Your task to perform on an android device: Open Chrome and go to settings Image 0: 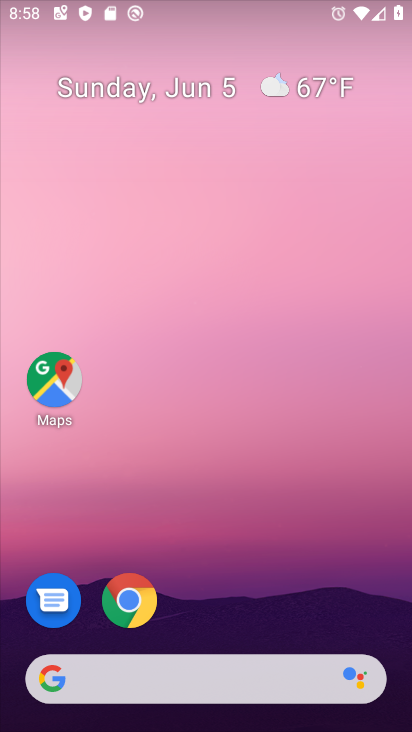
Step 0: drag from (396, 635) to (286, 55)
Your task to perform on an android device: Open Chrome and go to settings Image 1: 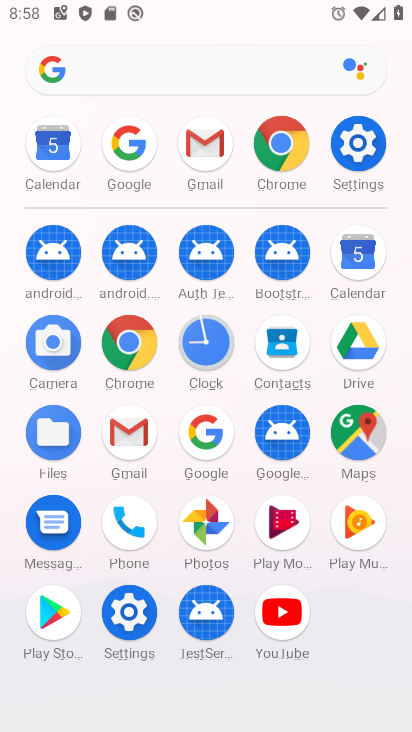
Step 1: click (276, 345)
Your task to perform on an android device: Open Chrome and go to settings Image 2: 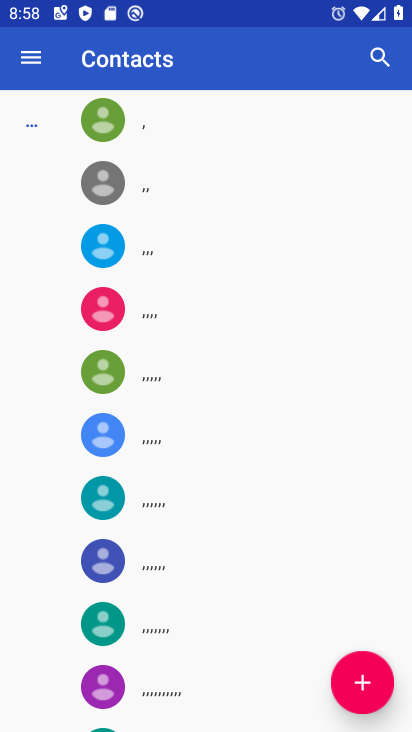
Step 2: press home button
Your task to perform on an android device: Open Chrome and go to settings Image 3: 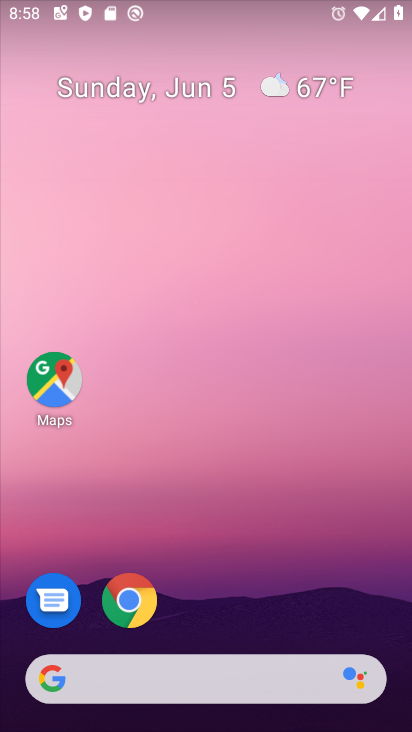
Step 3: drag from (392, 659) to (280, 40)
Your task to perform on an android device: Open Chrome and go to settings Image 4: 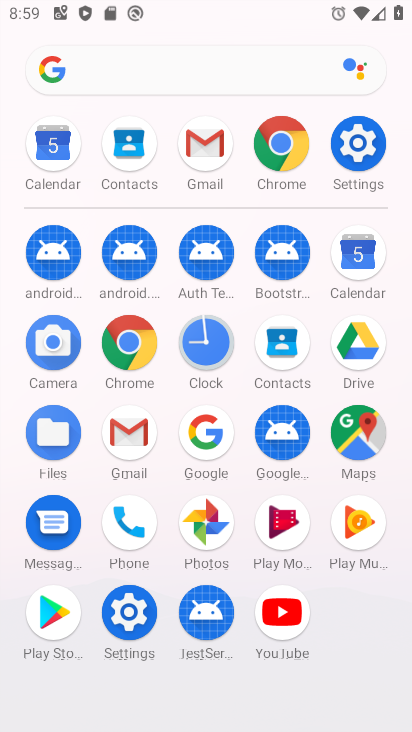
Step 4: click (115, 340)
Your task to perform on an android device: Open Chrome and go to settings Image 5: 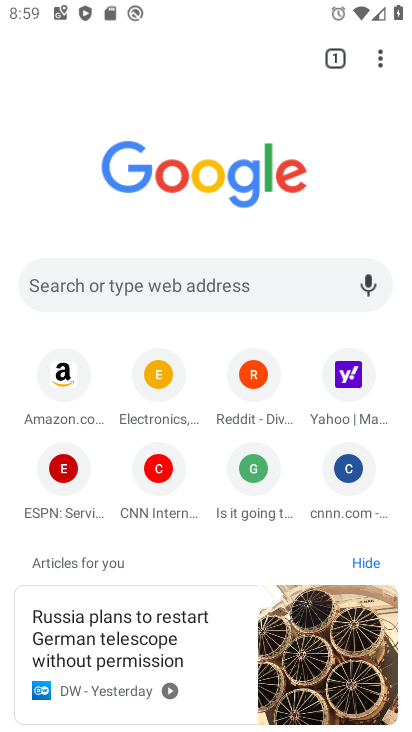
Step 5: click (382, 53)
Your task to perform on an android device: Open Chrome and go to settings Image 6: 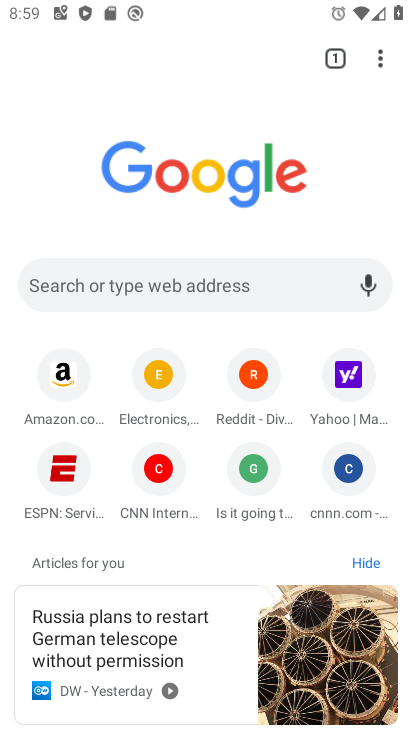
Step 6: click (379, 53)
Your task to perform on an android device: Open Chrome and go to settings Image 7: 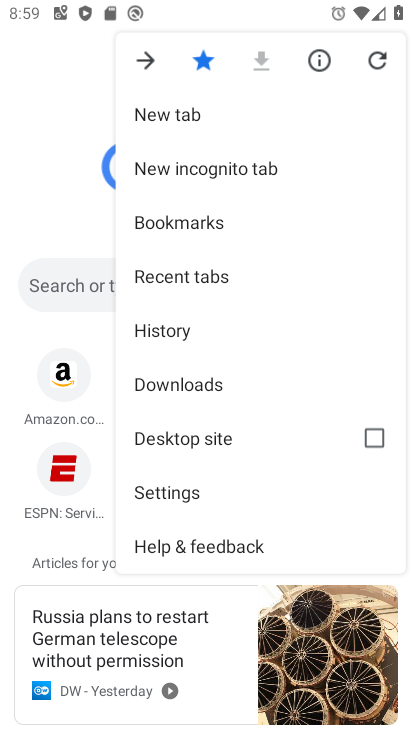
Step 7: click (195, 499)
Your task to perform on an android device: Open Chrome and go to settings Image 8: 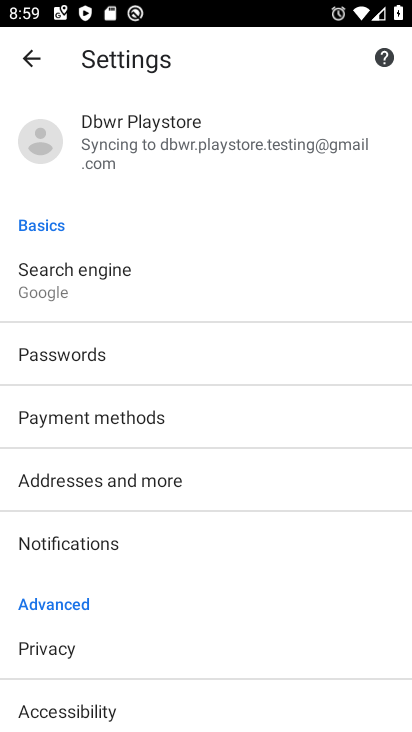
Step 8: task complete